Your task to perform on an android device: Play the last video I watched on Youtube Image 0: 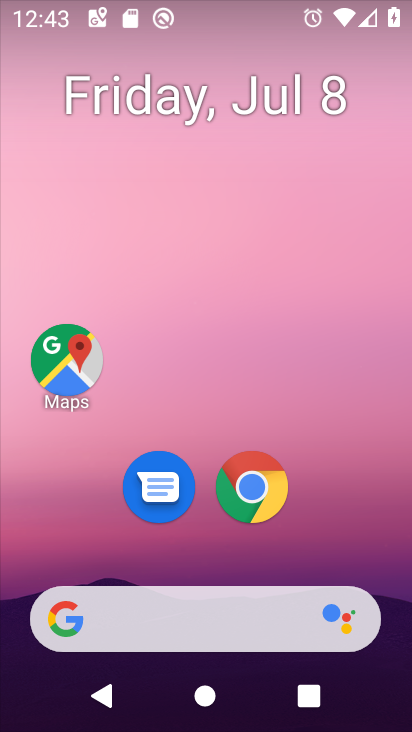
Step 0: drag from (358, 528) to (353, 128)
Your task to perform on an android device: Play the last video I watched on Youtube Image 1: 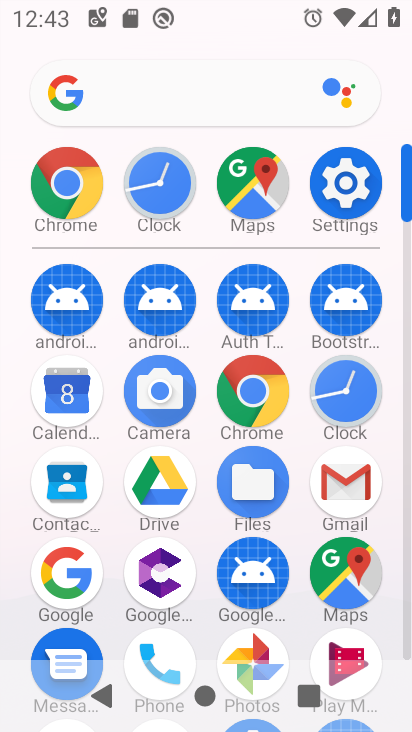
Step 1: drag from (389, 516) to (397, 275)
Your task to perform on an android device: Play the last video I watched on Youtube Image 2: 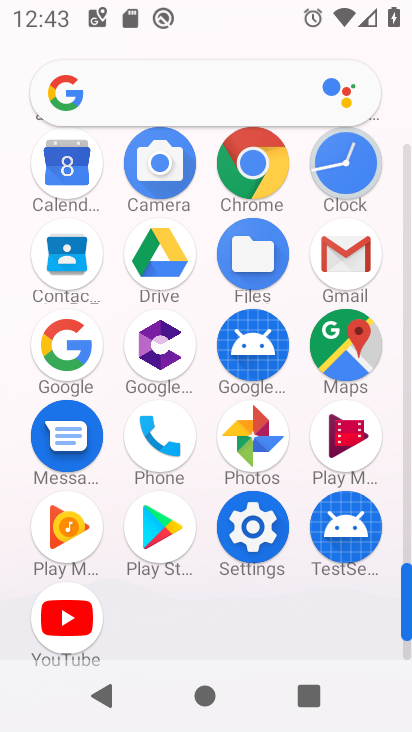
Step 2: click (69, 616)
Your task to perform on an android device: Play the last video I watched on Youtube Image 3: 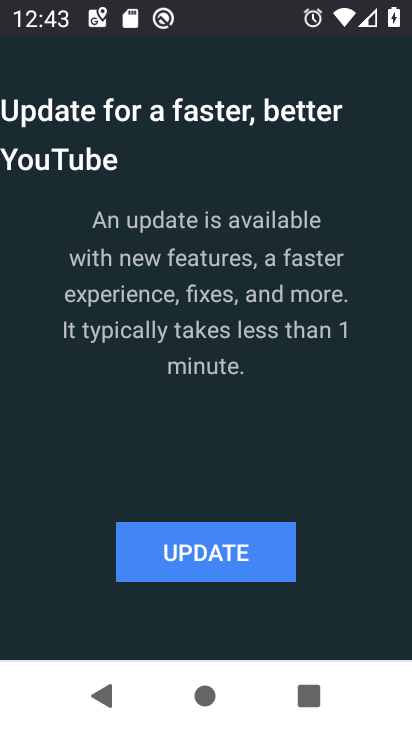
Step 3: press home button
Your task to perform on an android device: Play the last video I watched on Youtube Image 4: 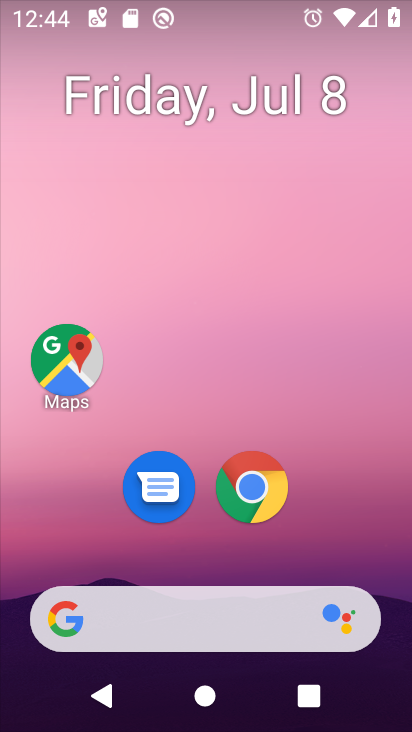
Step 4: drag from (361, 541) to (360, 126)
Your task to perform on an android device: Play the last video I watched on Youtube Image 5: 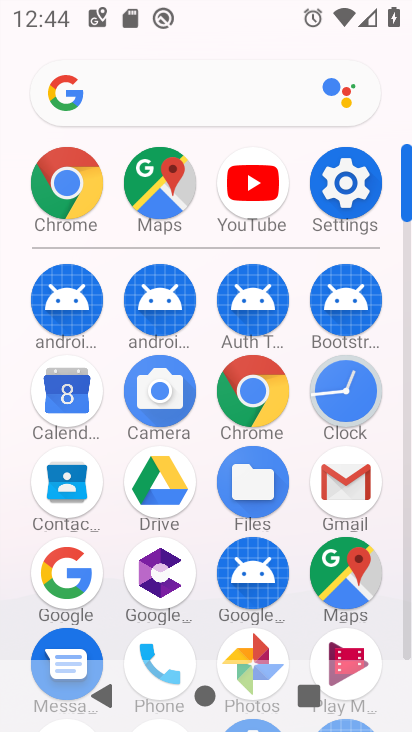
Step 5: click (272, 205)
Your task to perform on an android device: Play the last video I watched on Youtube Image 6: 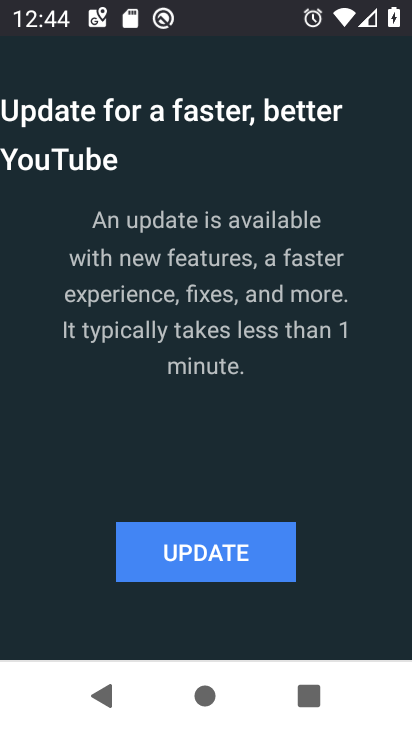
Step 6: click (218, 556)
Your task to perform on an android device: Play the last video I watched on Youtube Image 7: 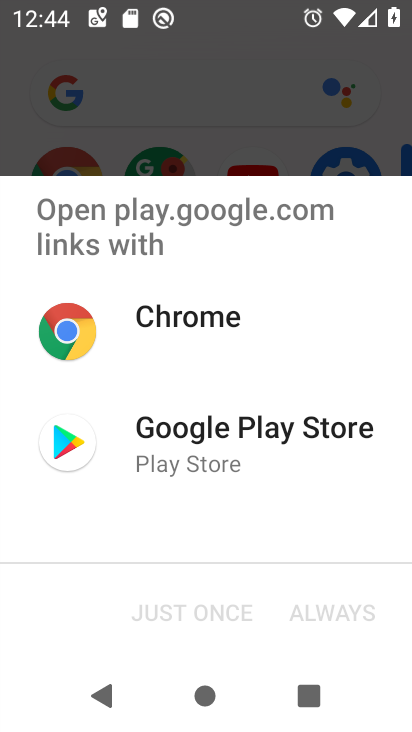
Step 7: click (233, 447)
Your task to perform on an android device: Play the last video I watched on Youtube Image 8: 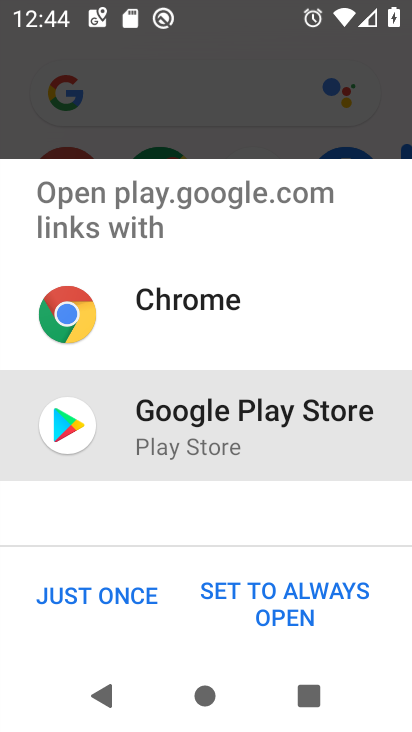
Step 8: click (137, 568)
Your task to perform on an android device: Play the last video I watched on Youtube Image 9: 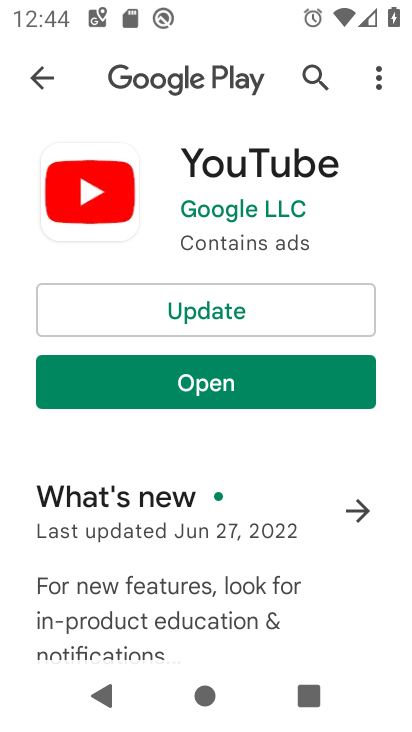
Step 9: click (279, 320)
Your task to perform on an android device: Play the last video I watched on Youtube Image 10: 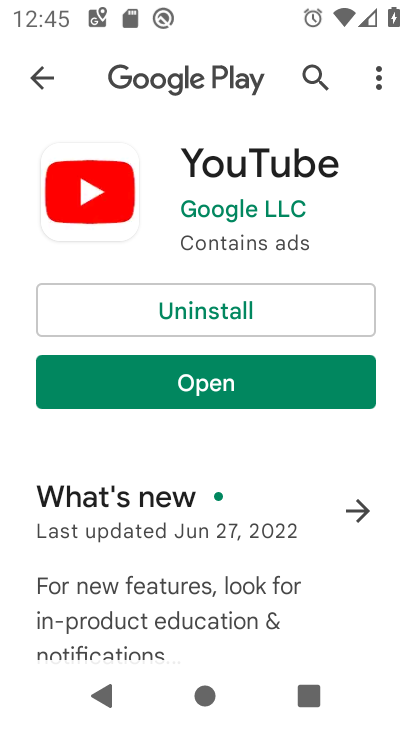
Step 10: click (327, 378)
Your task to perform on an android device: Play the last video I watched on Youtube Image 11: 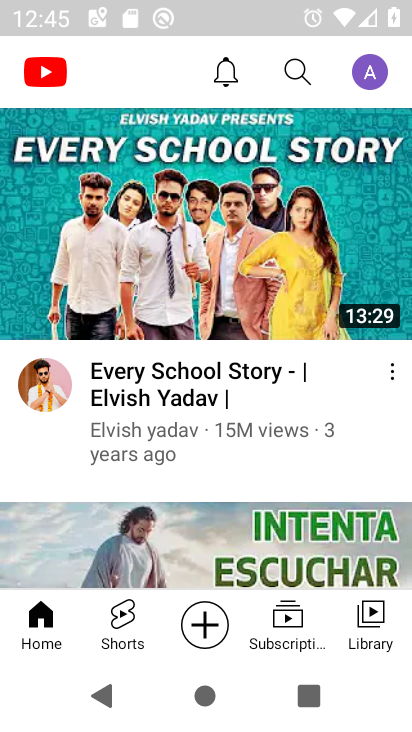
Step 11: click (369, 626)
Your task to perform on an android device: Play the last video I watched on Youtube Image 12: 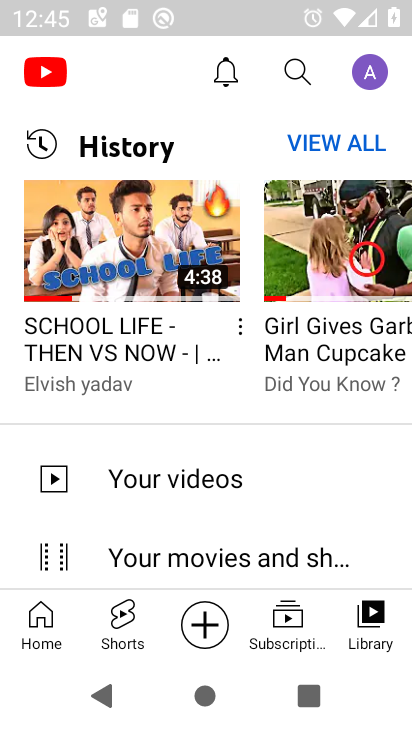
Step 12: click (101, 244)
Your task to perform on an android device: Play the last video I watched on Youtube Image 13: 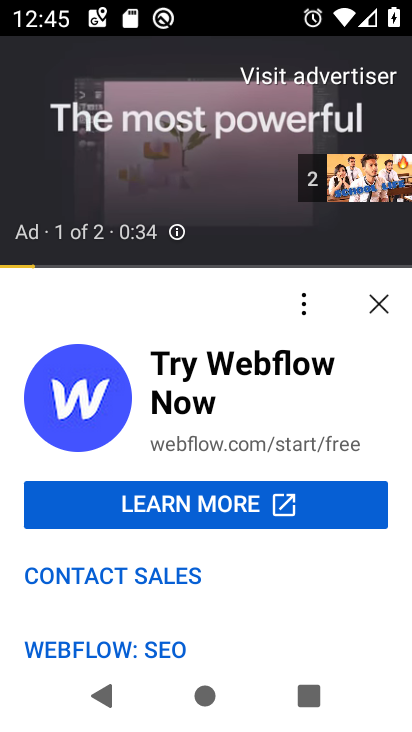
Step 13: task complete